Your task to perform on an android device: set default search engine in the chrome app Image 0: 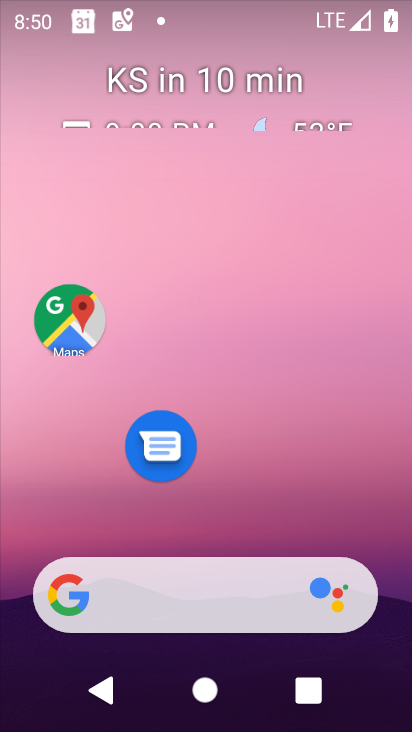
Step 0: drag from (205, 537) to (164, 7)
Your task to perform on an android device: set default search engine in the chrome app Image 1: 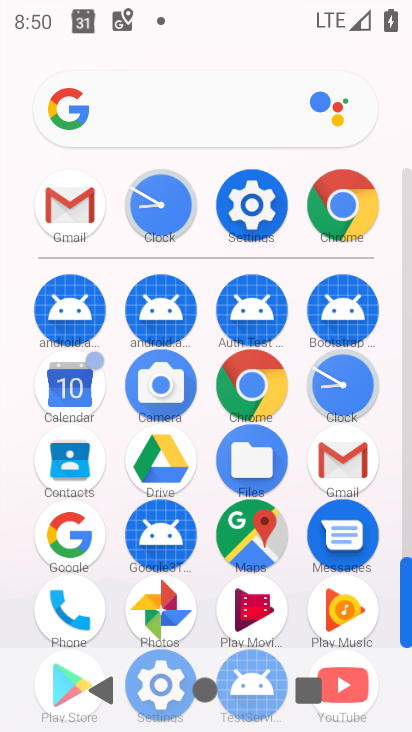
Step 1: click (232, 392)
Your task to perform on an android device: set default search engine in the chrome app Image 2: 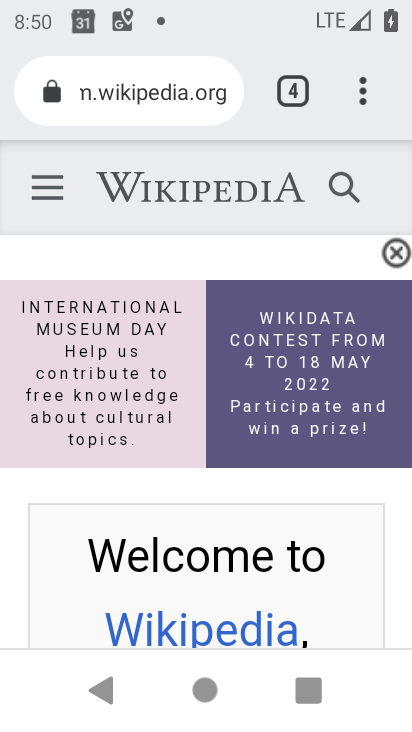
Step 2: click (357, 93)
Your task to perform on an android device: set default search engine in the chrome app Image 3: 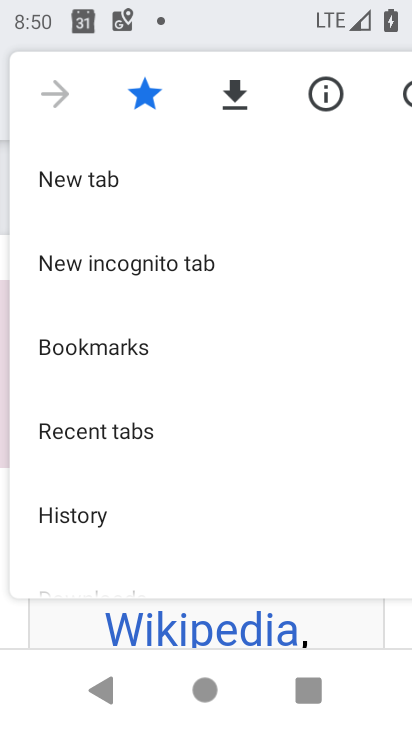
Step 3: drag from (269, 456) to (242, 127)
Your task to perform on an android device: set default search engine in the chrome app Image 4: 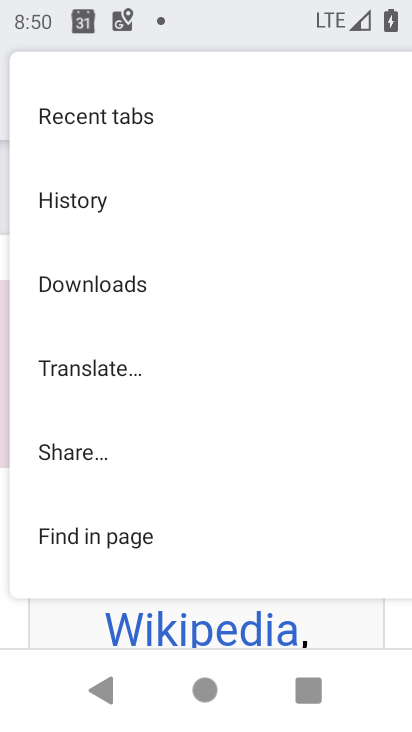
Step 4: drag from (134, 528) to (129, 280)
Your task to perform on an android device: set default search engine in the chrome app Image 5: 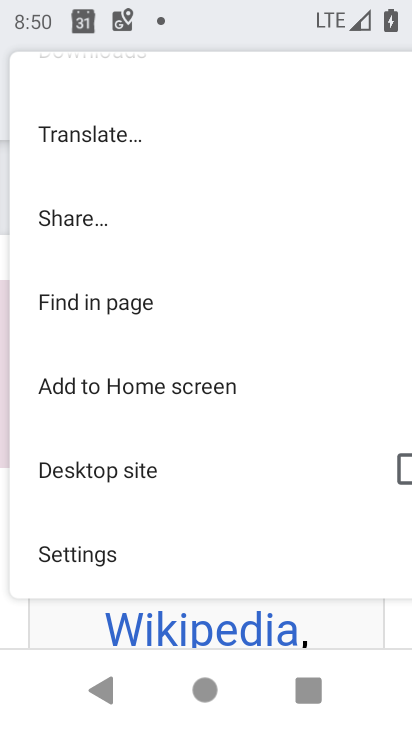
Step 5: click (94, 563)
Your task to perform on an android device: set default search engine in the chrome app Image 6: 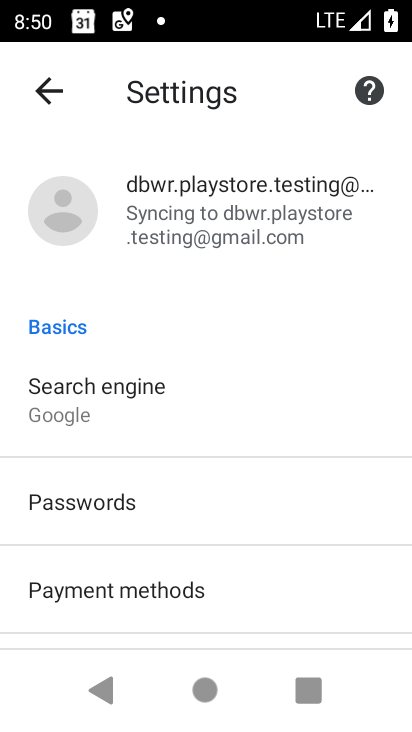
Step 6: click (88, 437)
Your task to perform on an android device: set default search engine in the chrome app Image 7: 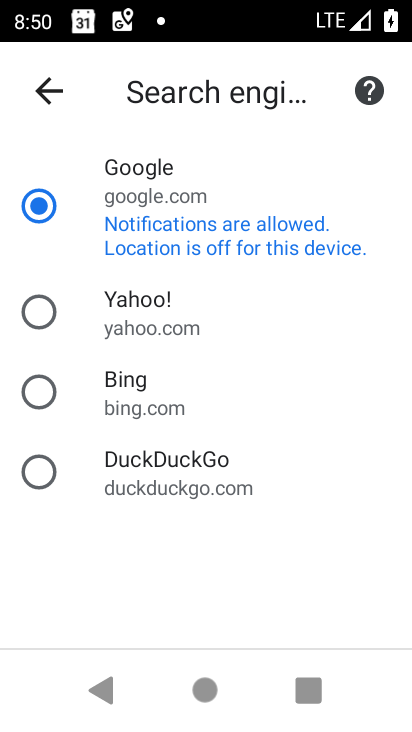
Step 7: task complete